Your task to perform on an android device: check google app version Image 0: 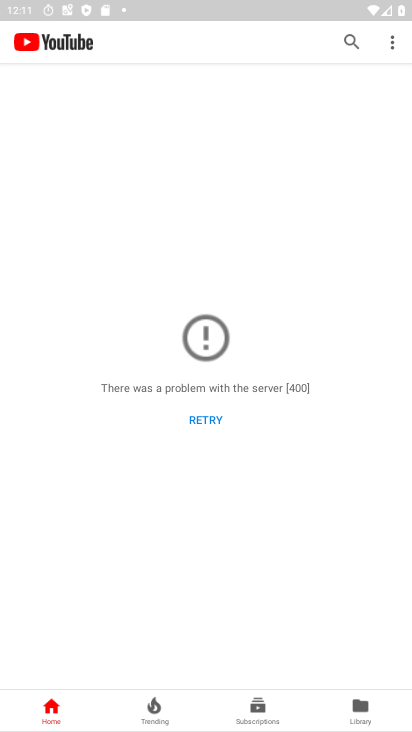
Step 0: press home button
Your task to perform on an android device: check google app version Image 1: 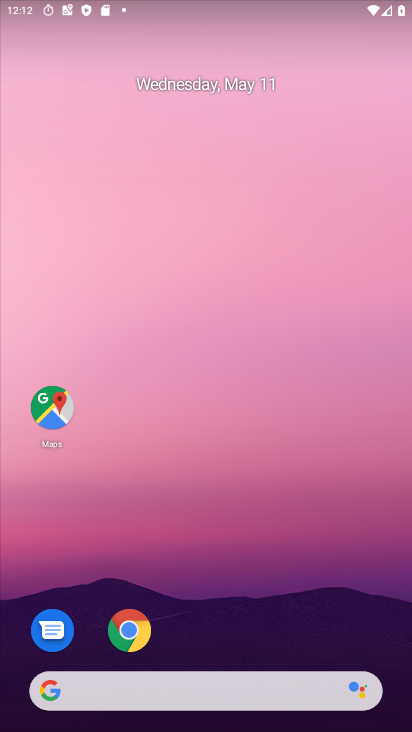
Step 1: drag from (305, 552) to (250, 60)
Your task to perform on an android device: check google app version Image 2: 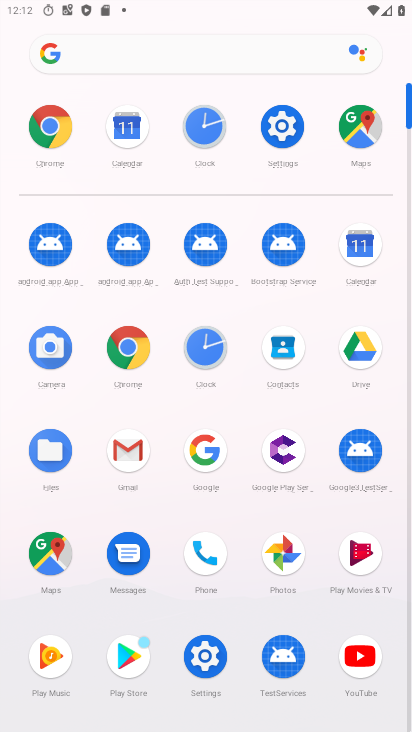
Step 2: click (289, 125)
Your task to perform on an android device: check google app version Image 3: 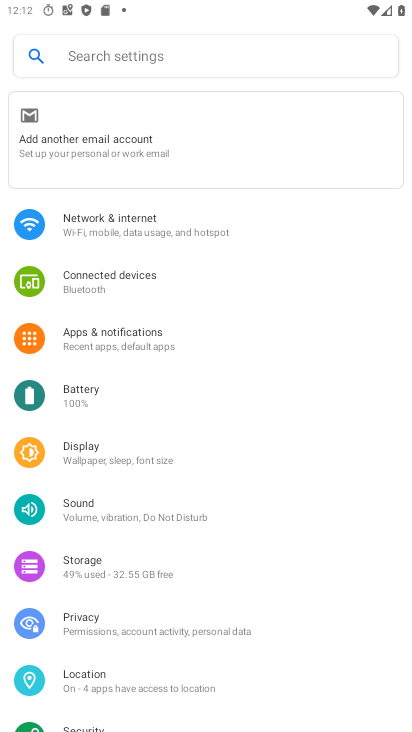
Step 3: drag from (241, 626) to (306, 113)
Your task to perform on an android device: check google app version Image 4: 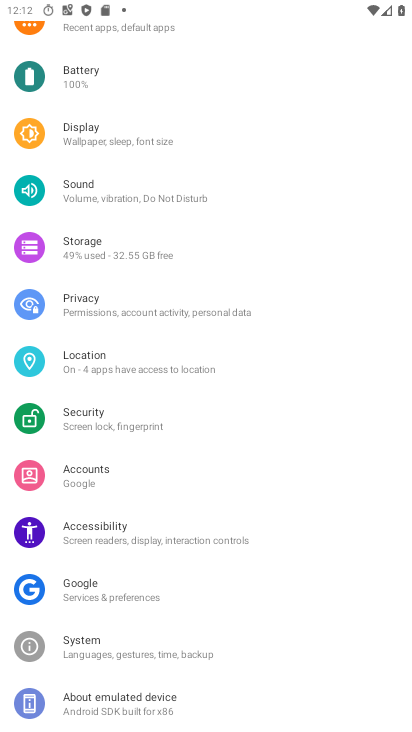
Step 4: drag from (207, 593) to (275, 162)
Your task to perform on an android device: check google app version Image 5: 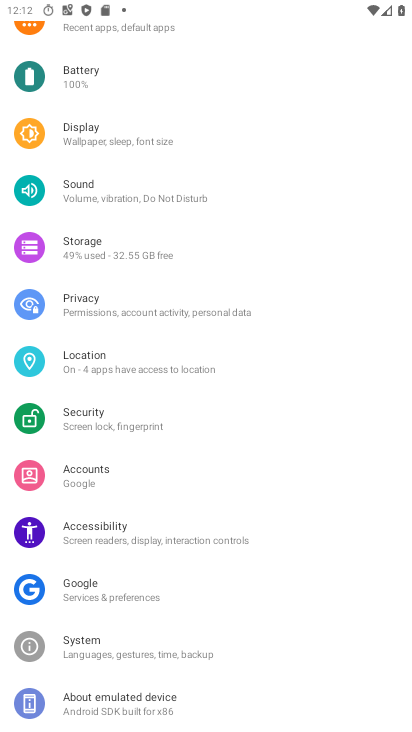
Step 5: click (224, 705)
Your task to perform on an android device: check google app version Image 6: 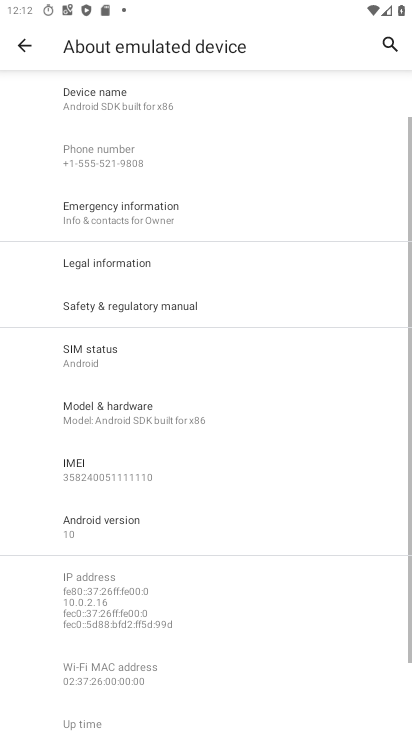
Step 6: drag from (224, 607) to (257, 226)
Your task to perform on an android device: check google app version Image 7: 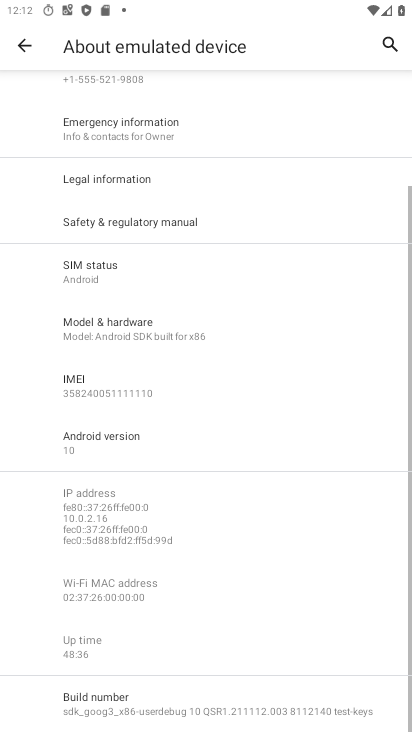
Step 7: press home button
Your task to perform on an android device: check google app version Image 8: 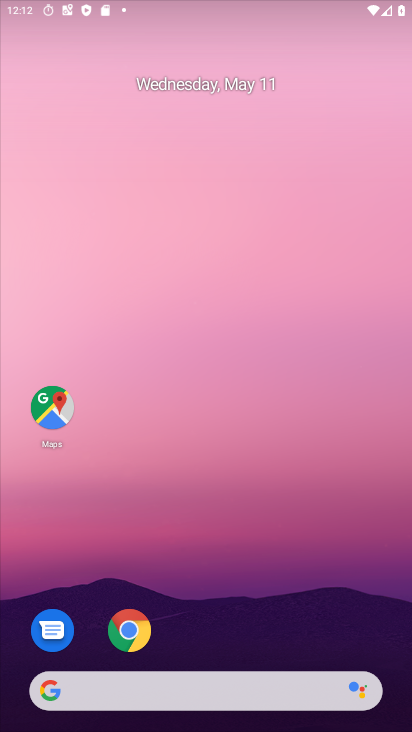
Step 8: drag from (252, 621) to (276, 155)
Your task to perform on an android device: check google app version Image 9: 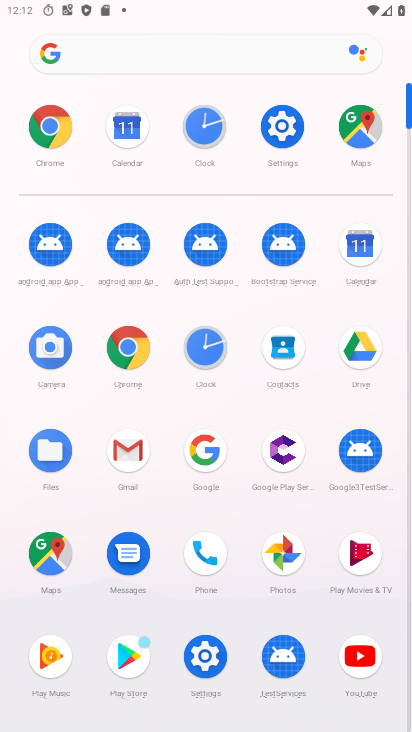
Step 9: click (202, 448)
Your task to perform on an android device: check google app version Image 10: 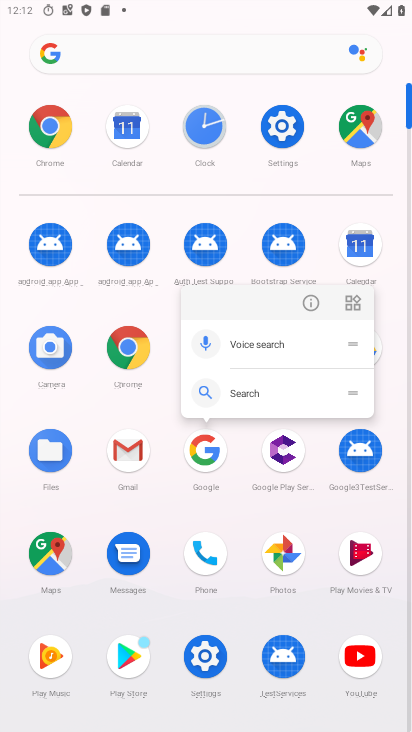
Step 10: click (309, 298)
Your task to perform on an android device: check google app version Image 11: 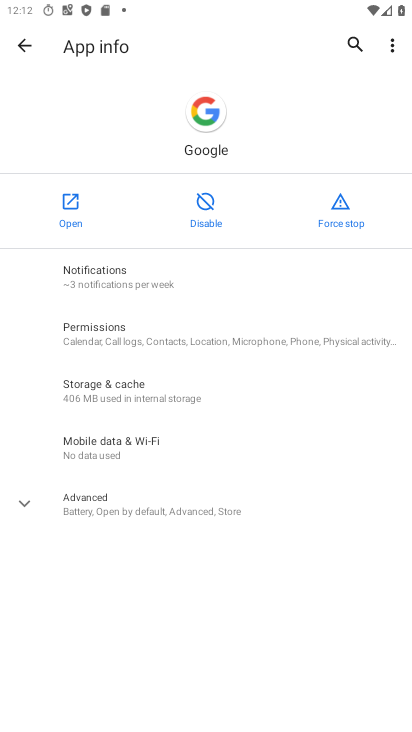
Step 11: drag from (223, 553) to (249, 265)
Your task to perform on an android device: check google app version Image 12: 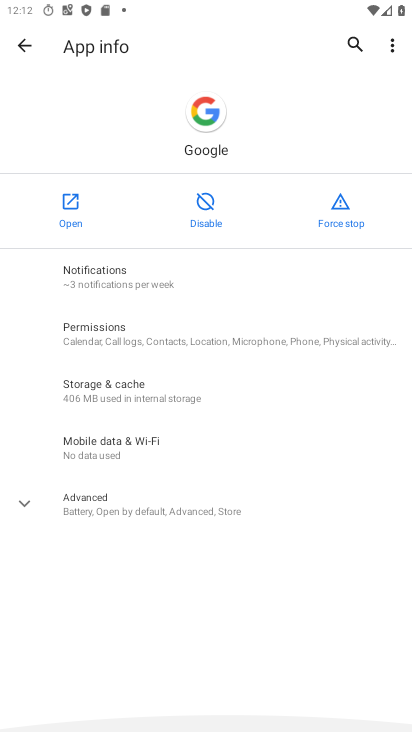
Step 12: click (123, 500)
Your task to perform on an android device: check google app version Image 13: 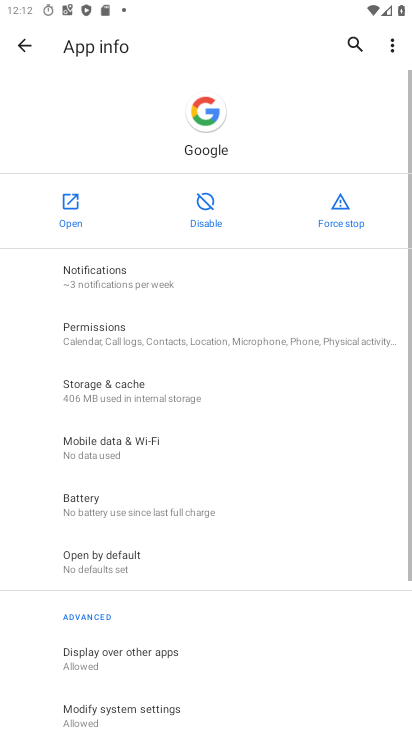
Step 13: task complete